Your task to perform on an android device: add a contact in the contacts app Image 0: 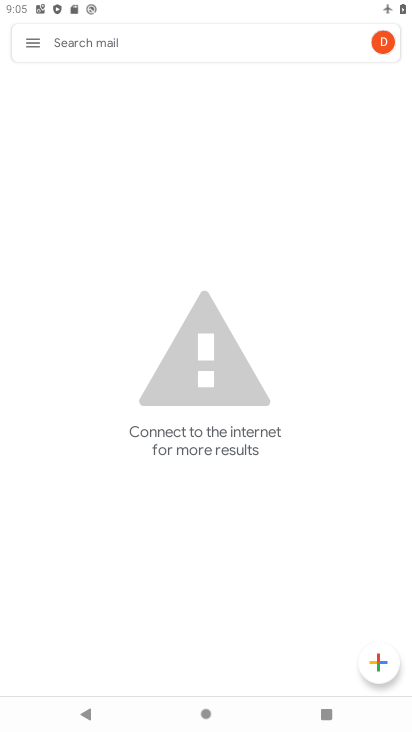
Step 0: press home button
Your task to perform on an android device: add a contact in the contacts app Image 1: 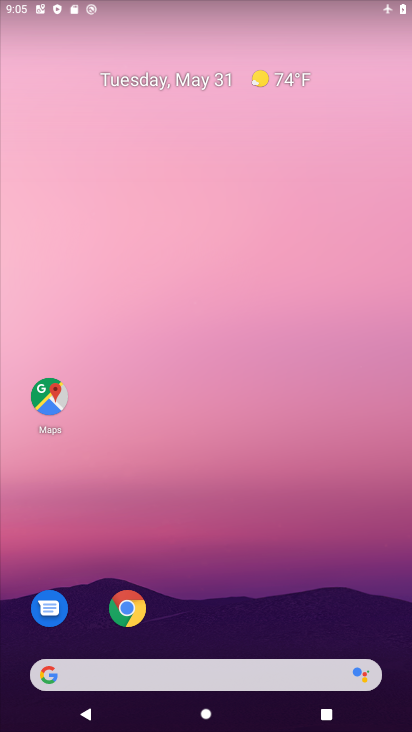
Step 1: drag from (216, 645) to (109, 0)
Your task to perform on an android device: add a contact in the contacts app Image 2: 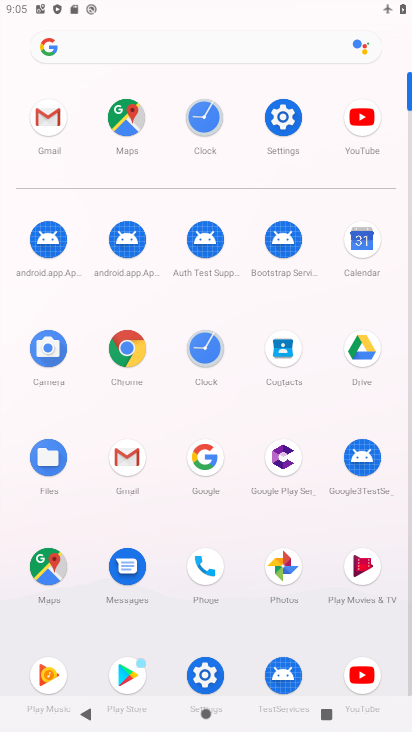
Step 2: click (206, 546)
Your task to perform on an android device: add a contact in the contacts app Image 3: 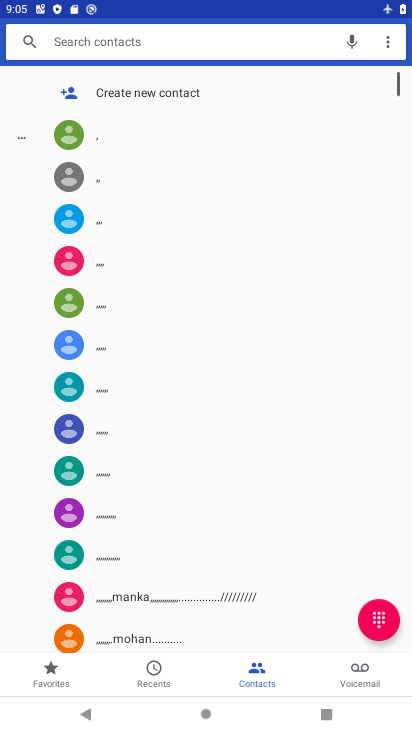
Step 3: click (125, 88)
Your task to perform on an android device: add a contact in the contacts app Image 4: 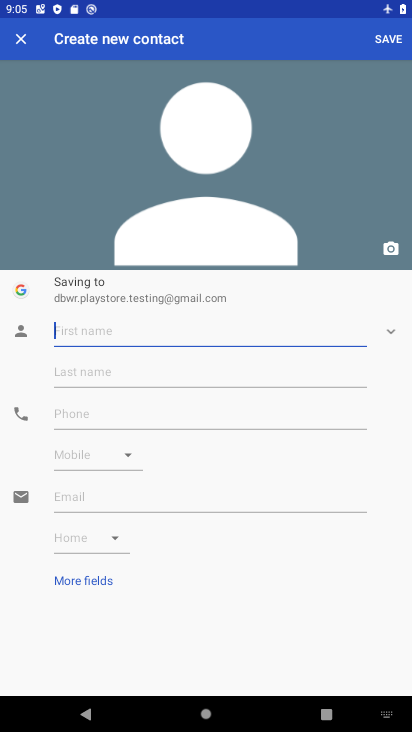
Step 4: type "nhji"
Your task to perform on an android device: add a contact in the contacts app Image 5: 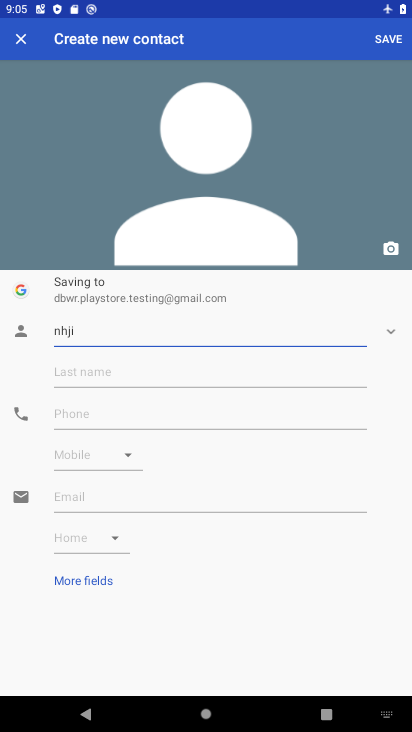
Step 5: click (294, 415)
Your task to perform on an android device: add a contact in the contacts app Image 6: 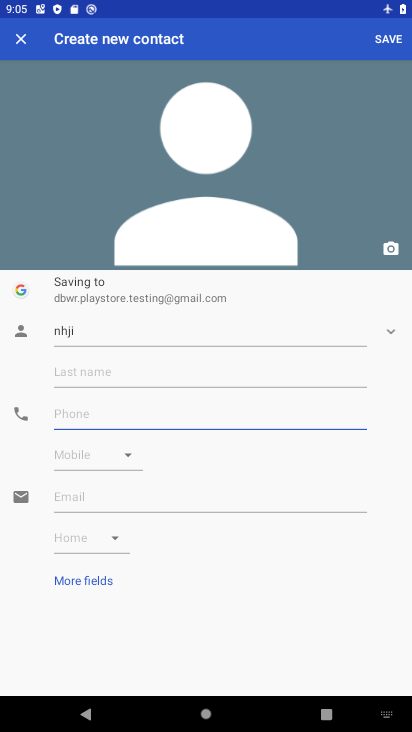
Step 6: type "989"
Your task to perform on an android device: add a contact in the contacts app Image 7: 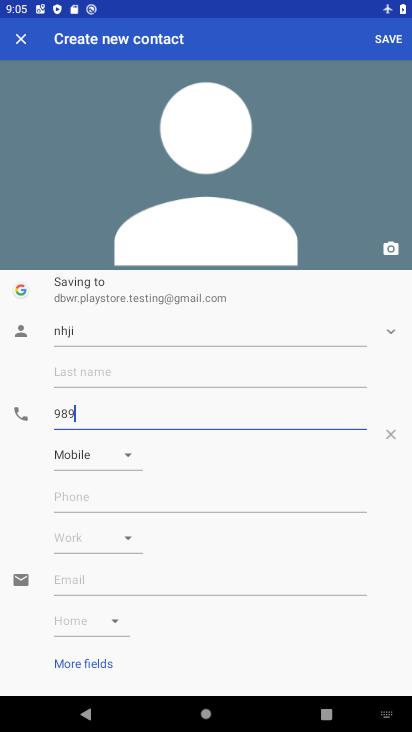
Step 7: click (388, 50)
Your task to perform on an android device: add a contact in the contacts app Image 8: 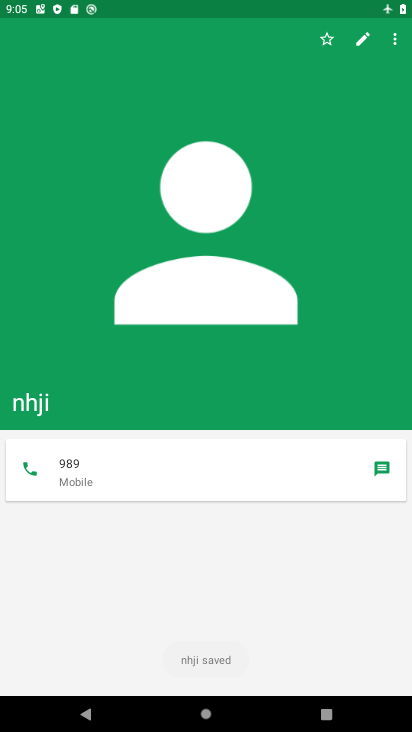
Step 8: task complete